Your task to perform on an android device: add a label to a message in the gmail app Image 0: 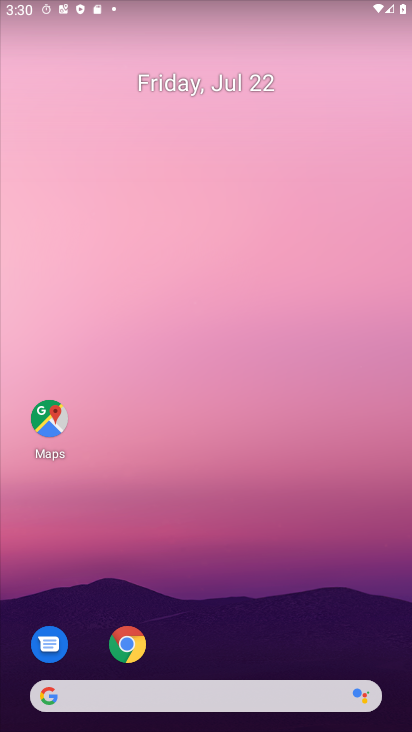
Step 0: press home button
Your task to perform on an android device: add a label to a message in the gmail app Image 1: 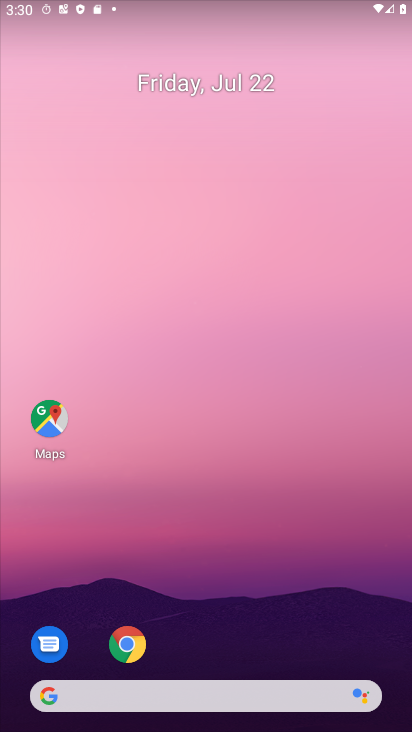
Step 1: drag from (229, 646) to (229, 35)
Your task to perform on an android device: add a label to a message in the gmail app Image 2: 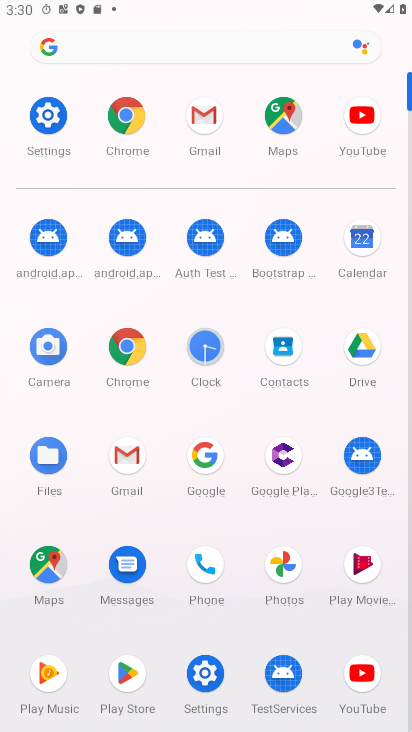
Step 2: click (212, 116)
Your task to perform on an android device: add a label to a message in the gmail app Image 3: 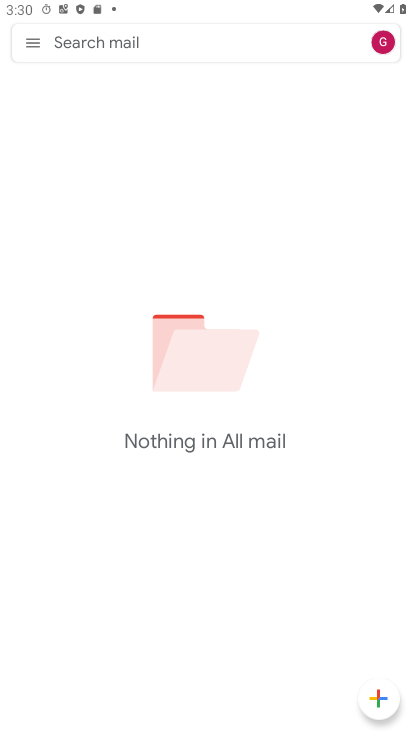
Step 3: click (29, 46)
Your task to perform on an android device: add a label to a message in the gmail app Image 4: 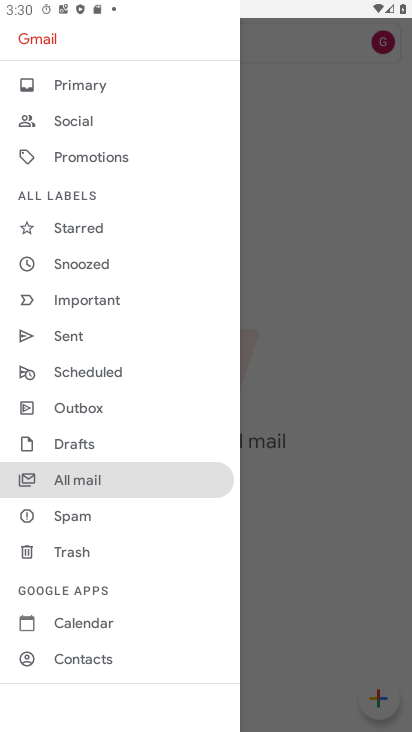
Step 4: click (81, 477)
Your task to perform on an android device: add a label to a message in the gmail app Image 5: 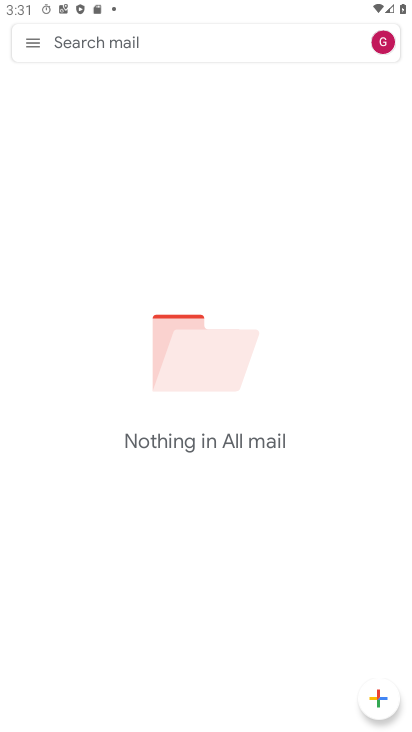
Step 5: task complete